Your task to perform on an android device: change the clock style Image 0: 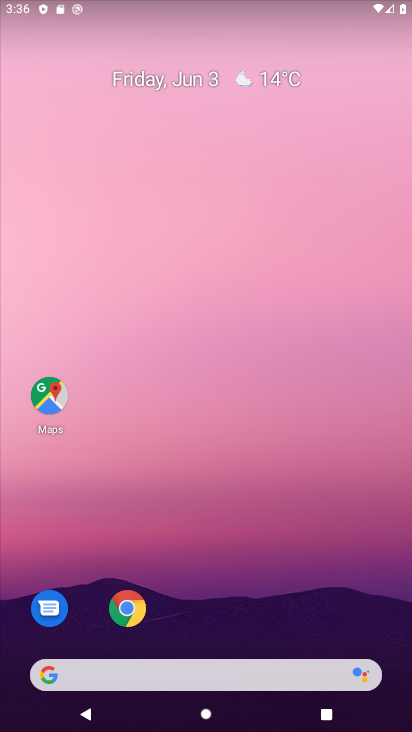
Step 0: drag from (174, 658) to (180, 253)
Your task to perform on an android device: change the clock style Image 1: 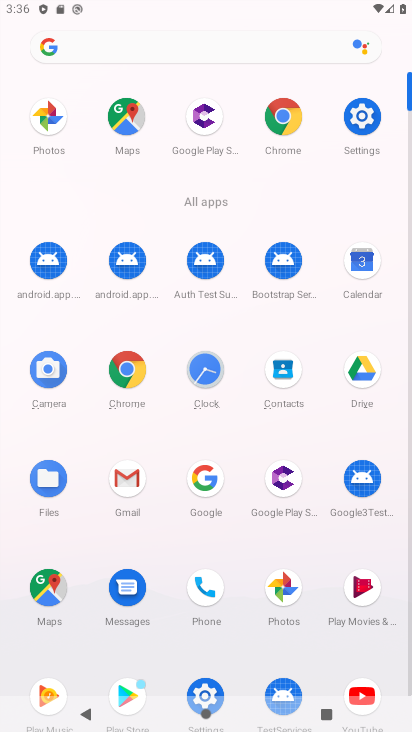
Step 1: click (214, 367)
Your task to perform on an android device: change the clock style Image 2: 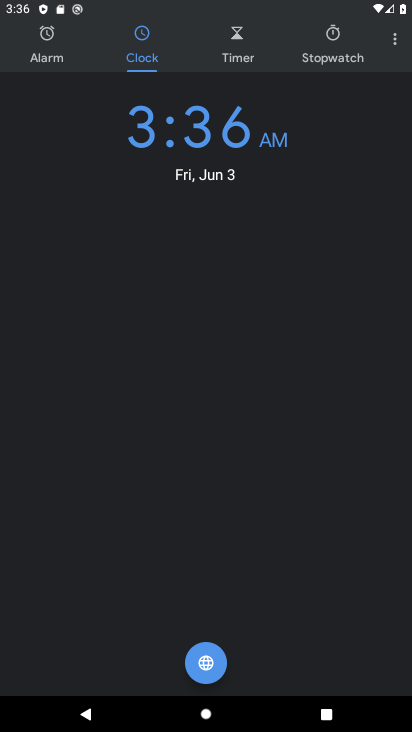
Step 2: click (390, 38)
Your task to perform on an android device: change the clock style Image 3: 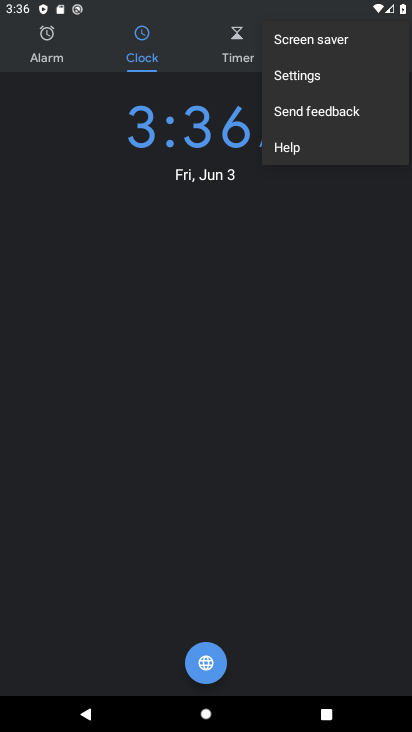
Step 3: click (307, 75)
Your task to perform on an android device: change the clock style Image 4: 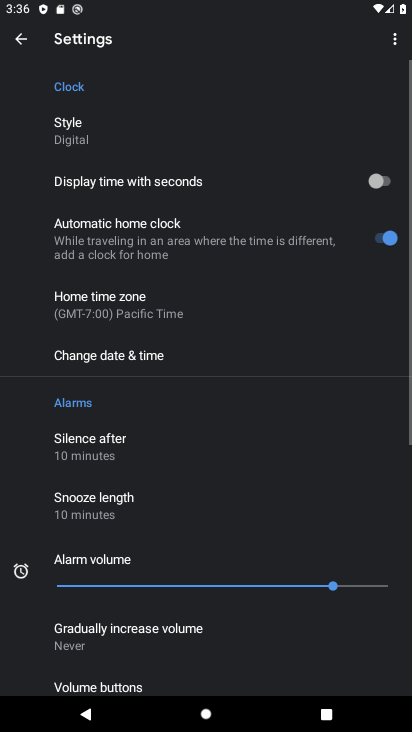
Step 4: click (63, 143)
Your task to perform on an android device: change the clock style Image 5: 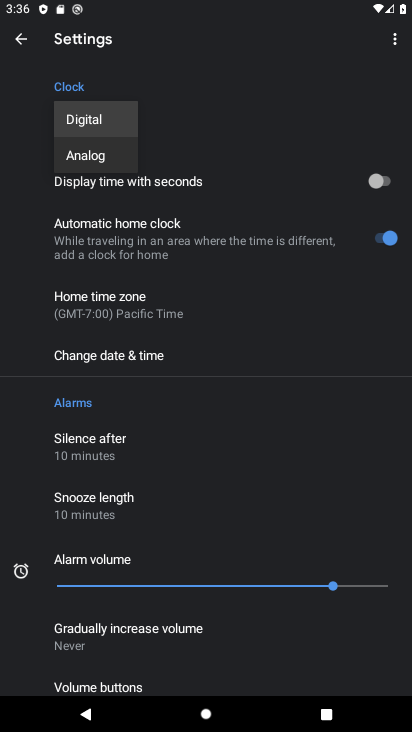
Step 5: click (88, 164)
Your task to perform on an android device: change the clock style Image 6: 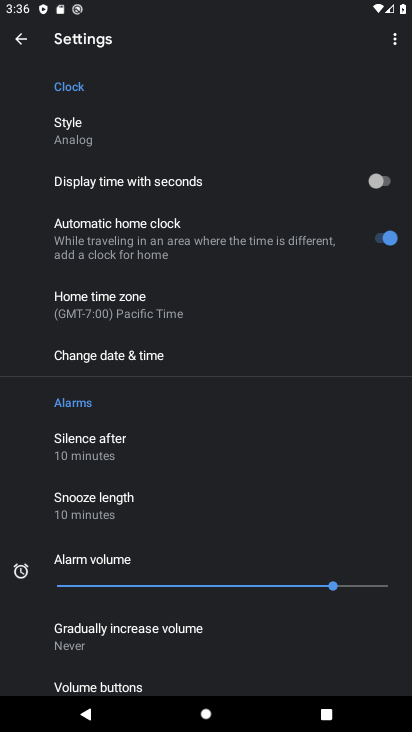
Step 6: task complete